Your task to perform on an android device: Go to eBay Image 0: 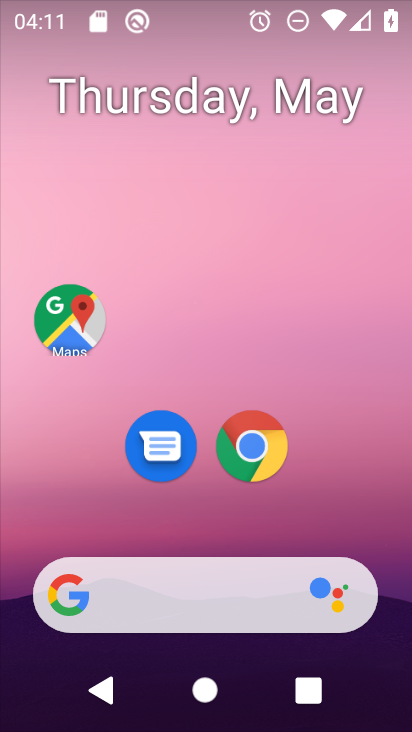
Step 0: click (327, 439)
Your task to perform on an android device: Go to eBay Image 1: 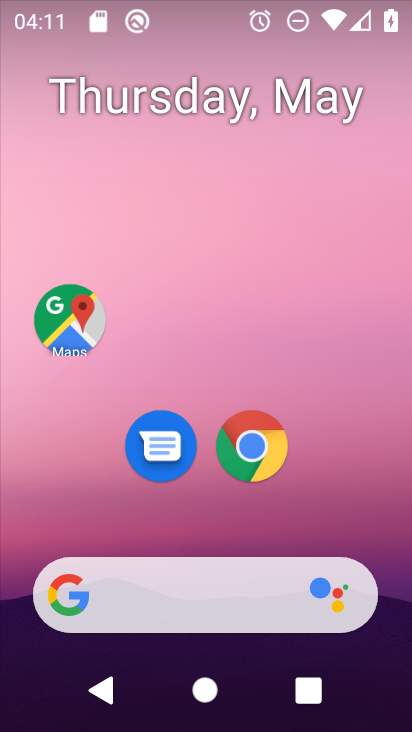
Step 1: click (258, 446)
Your task to perform on an android device: Go to eBay Image 2: 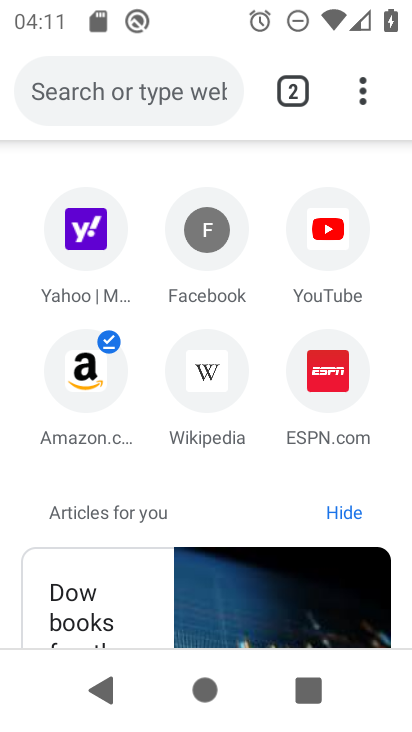
Step 2: click (92, 92)
Your task to perform on an android device: Go to eBay Image 3: 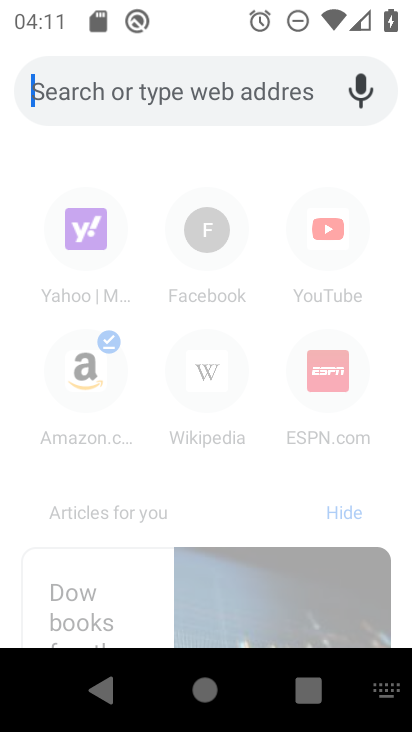
Step 3: type "ebay"
Your task to perform on an android device: Go to eBay Image 4: 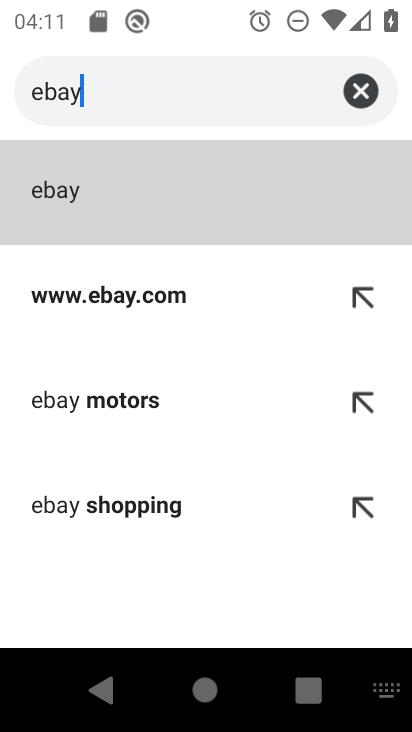
Step 4: click (36, 191)
Your task to perform on an android device: Go to eBay Image 5: 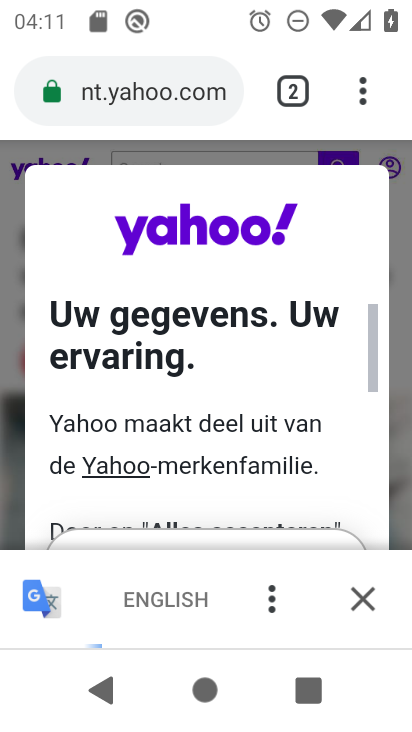
Step 5: click (139, 93)
Your task to perform on an android device: Go to eBay Image 6: 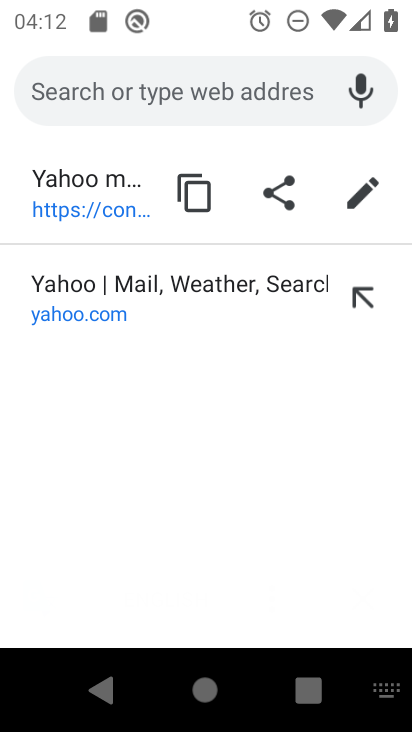
Step 6: type "ebay"
Your task to perform on an android device: Go to eBay Image 7: 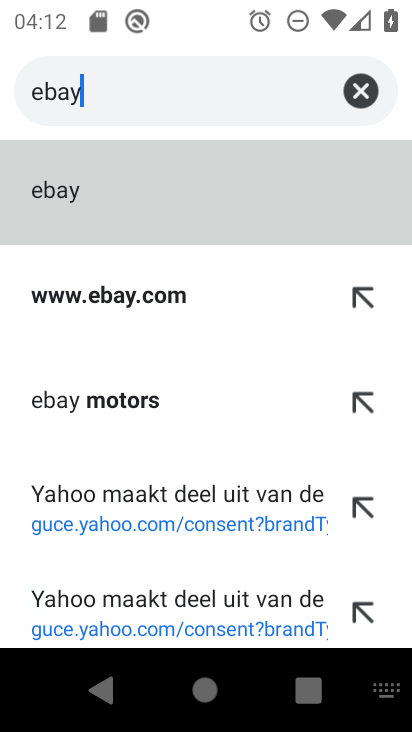
Step 7: click (84, 300)
Your task to perform on an android device: Go to eBay Image 8: 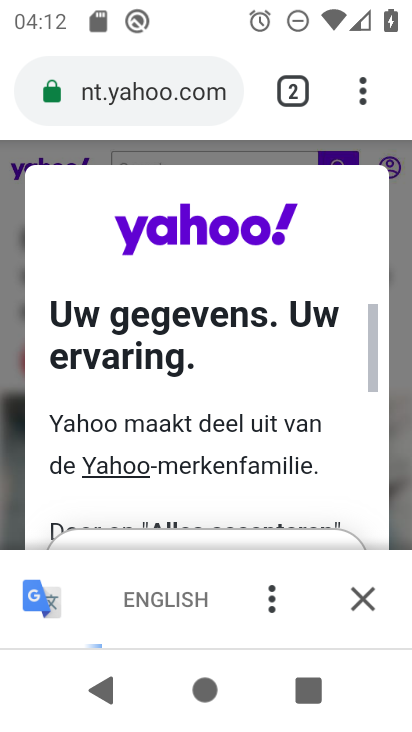
Step 8: drag from (304, 477) to (254, 124)
Your task to perform on an android device: Go to eBay Image 9: 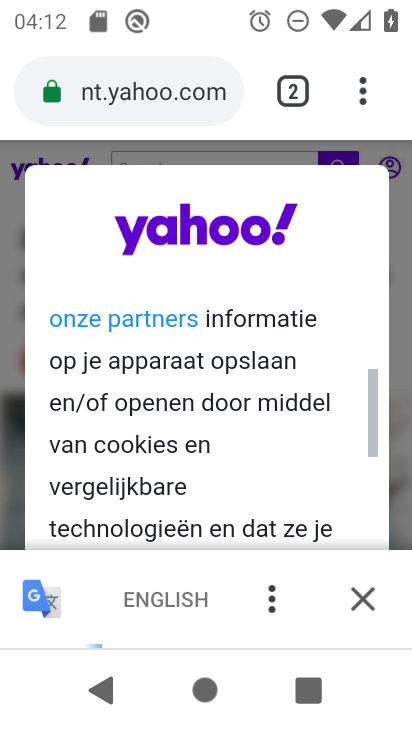
Step 9: drag from (246, 468) to (212, 70)
Your task to perform on an android device: Go to eBay Image 10: 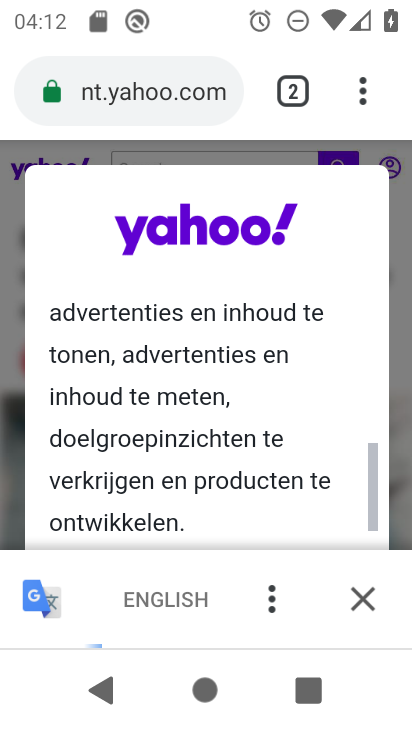
Step 10: drag from (246, 461) to (201, 92)
Your task to perform on an android device: Go to eBay Image 11: 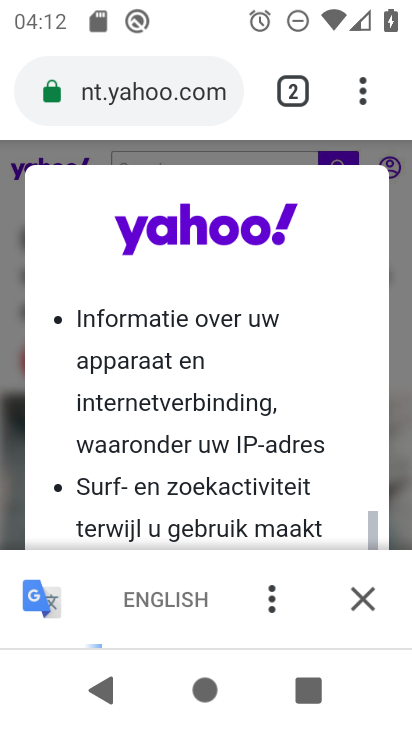
Step 11: drag from (198, 419) to (161, 59)
Your task to perform on an android device: Go to eBay Image 12: 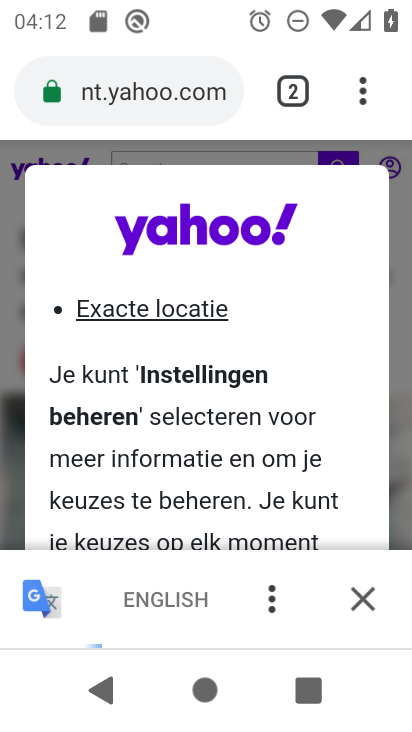
Step 12: drag from (227, 466) to (183, 100)
Your task to perform on an android device: Go to eBay Image 13: 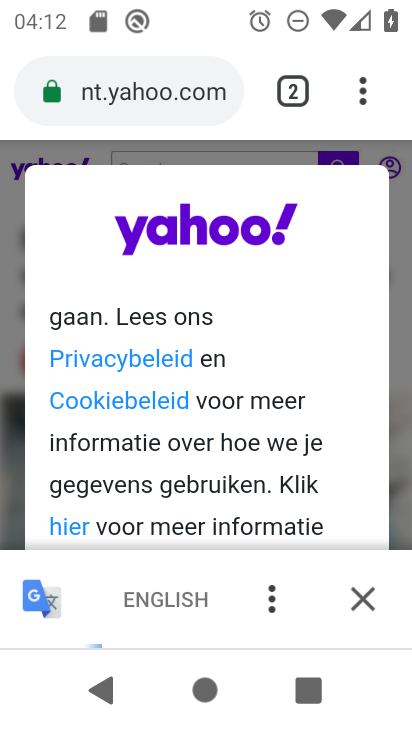
Step 13: drag from (193, 473) to (151, 127)
Your task to perform on an android device: Go to eBay Image 14: 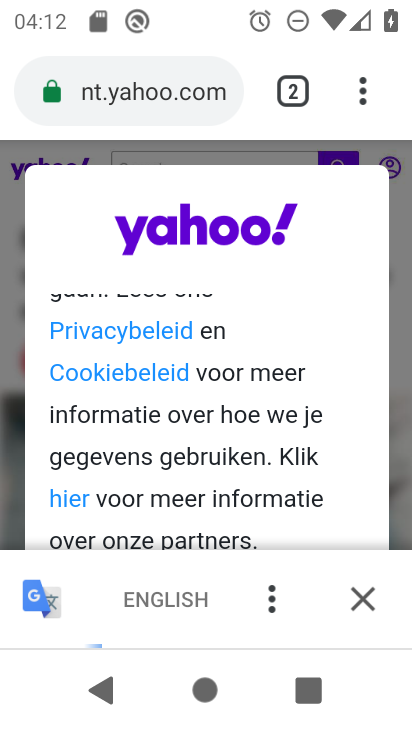
Step 14: drag from (225, 507) to (192, 191)
Your task to perform on an android device: Go to eBay Image 15: 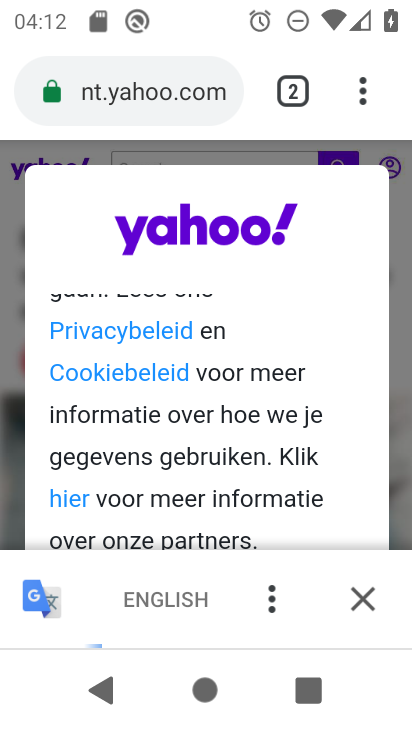
Step 15: click (359, 587)
Your task to perform on an android device: Go to eBay Image 16: 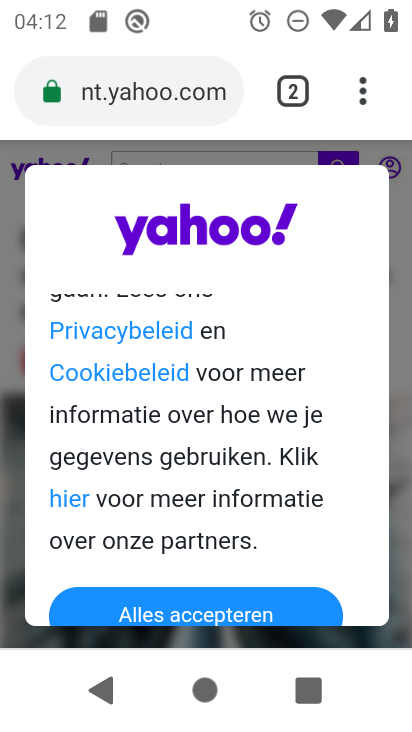
Step 16: click (236, 610)
Your task to perform on an android device: Go to eBay Image 17: 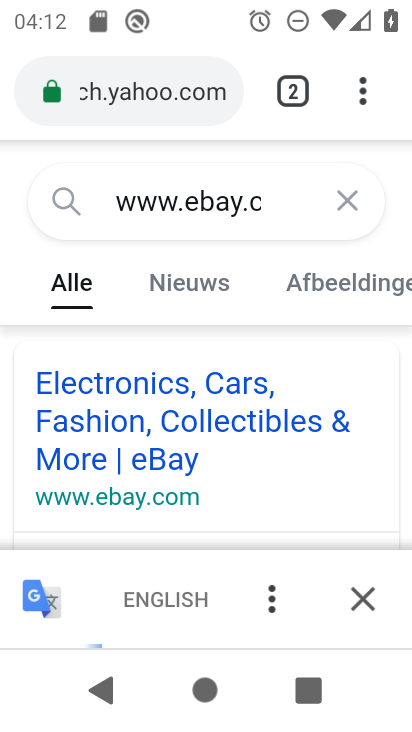
Step 17: click (116, 484)
Your task to perform on an android device: Go to eBay Image 18: 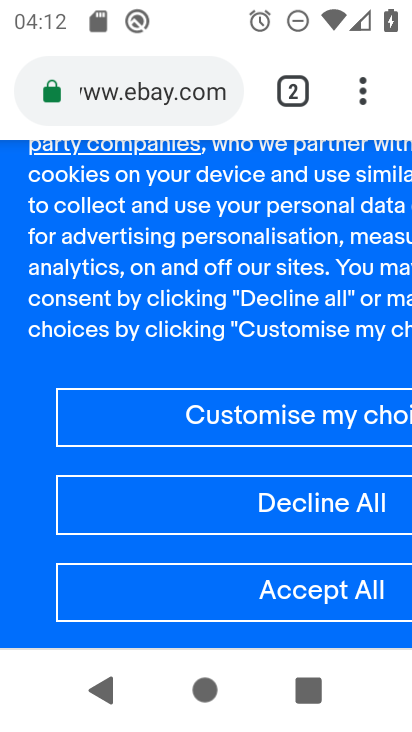
Step 18: task complete